Your task to perform on an android device: Search for flights from Seoul to Barcelona Image 0: 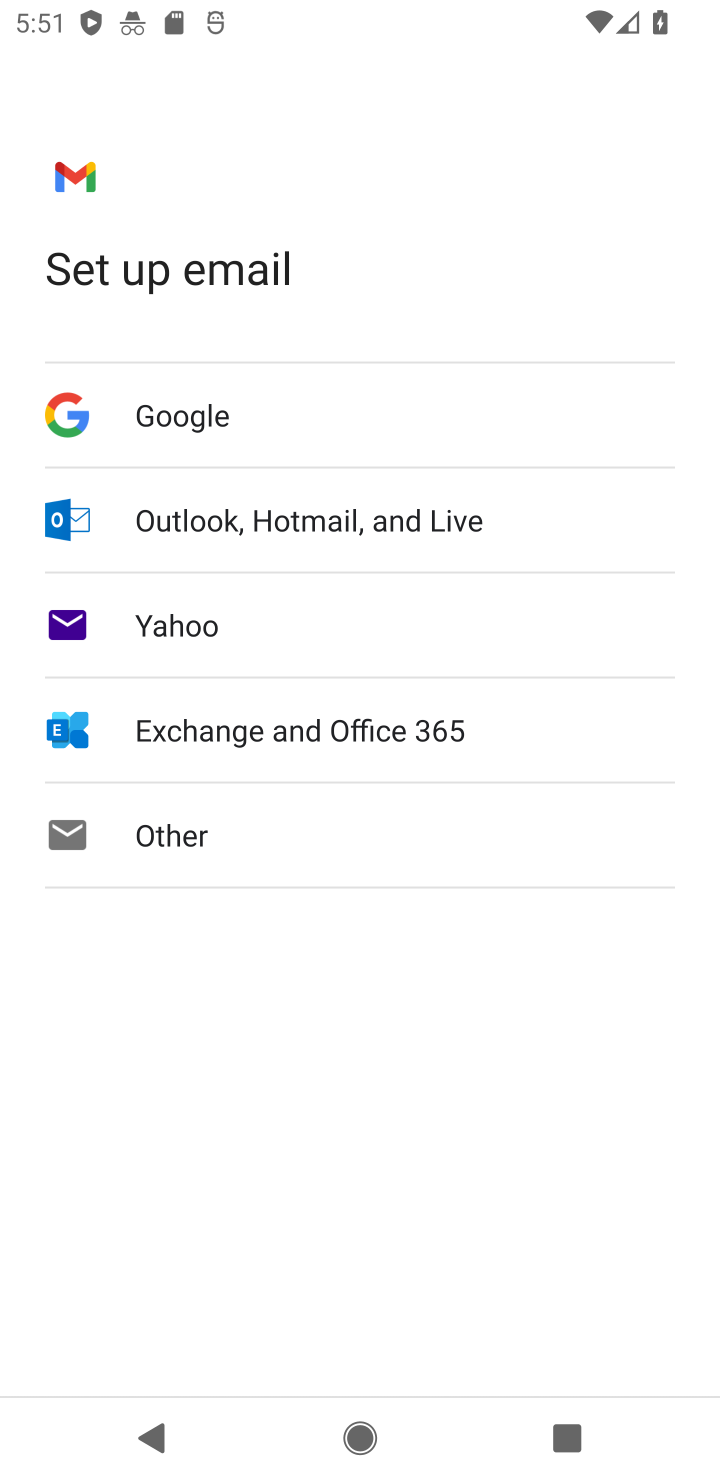
Step 0: press home button
Your task to perform on an android device: Search for flights from Seoul to Barcelona Image 1: 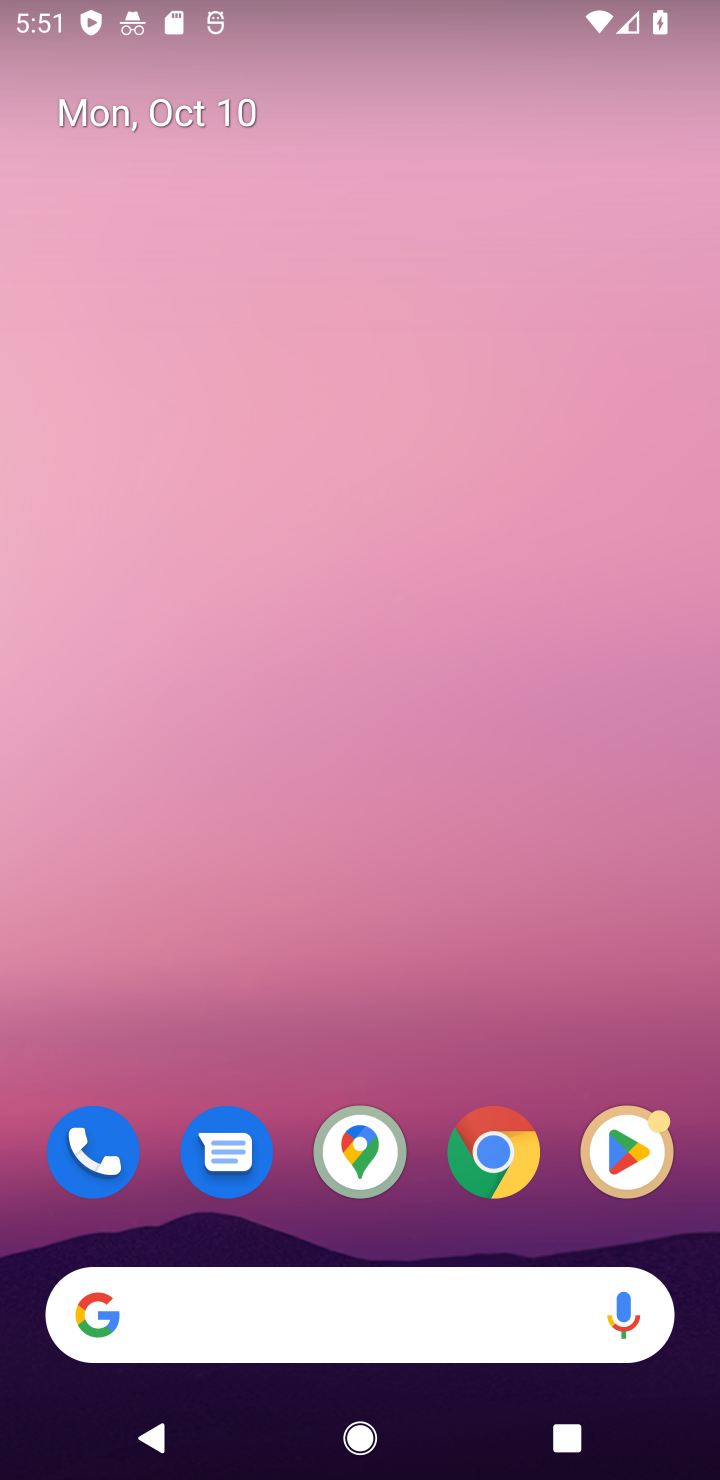
Step 1: click (495, 1150)
Your task to perform on an android device: Search for flights from Seoul to Barcelona Image 2: 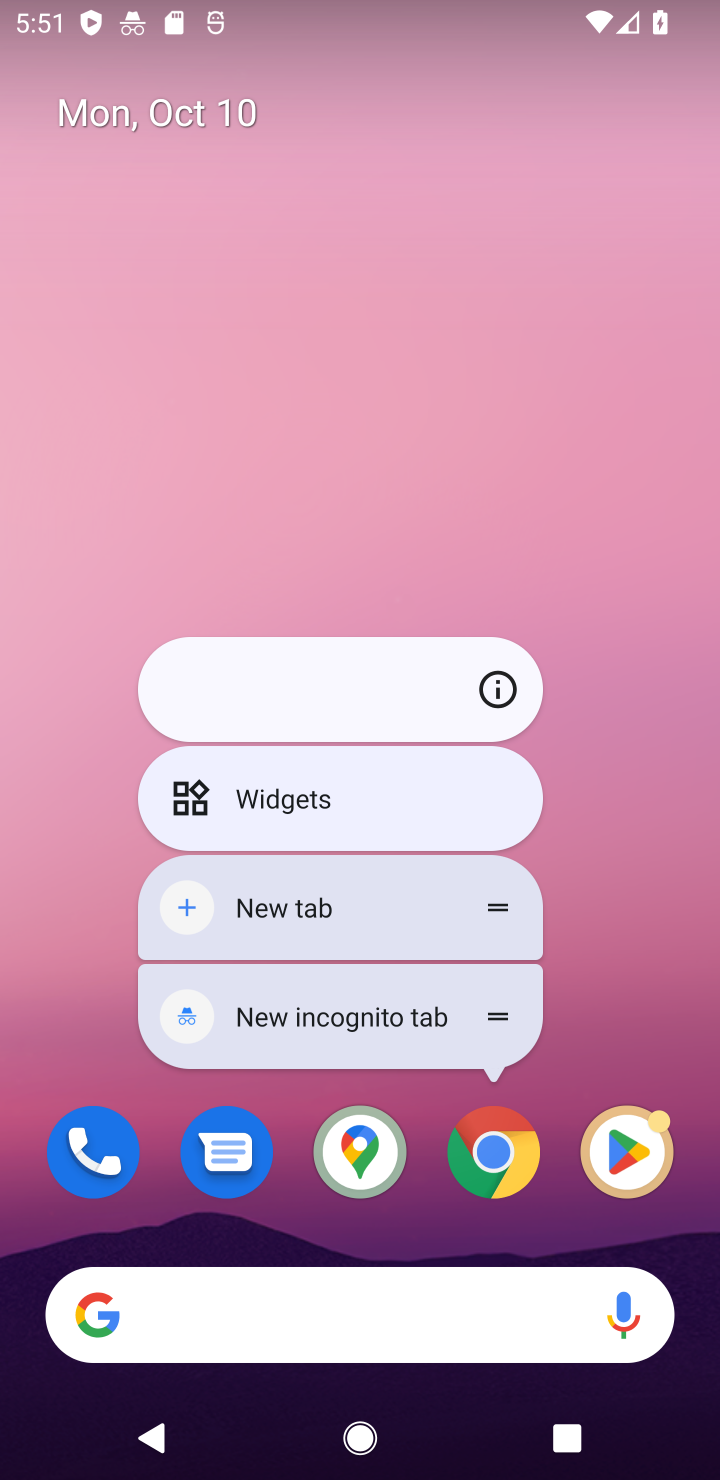
Step 2: click (495, 1150)
Your task to perform on an android device: Search for flights from Seoul to Barcelona Image 3: 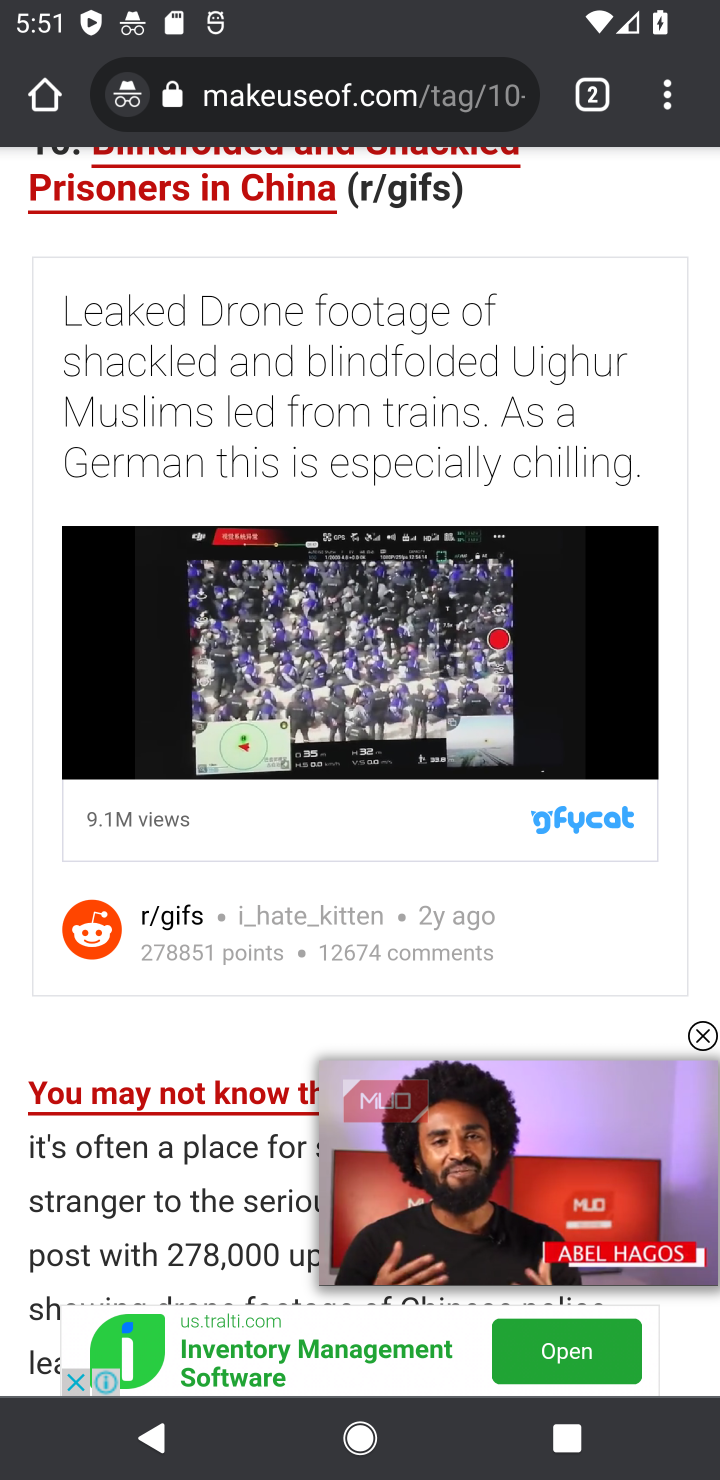
Step 3: click (451, 93)
Your task to perform on an android device: Search for flights from Seoul to Barcelona Image 4: 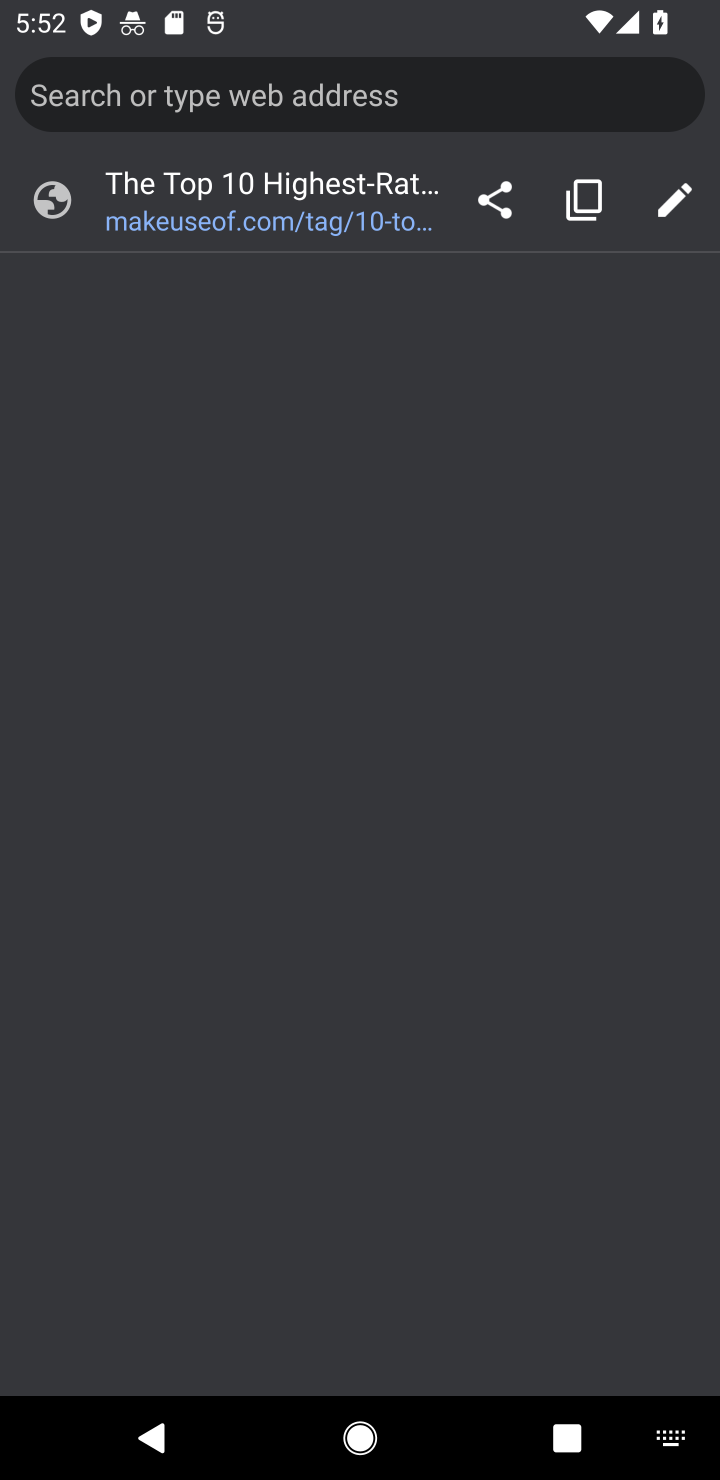
Step 4: type "flights from Seoul to Barcelona"
Your task to perform on an android device: Search for flights from Seoul to Barcelona Image 5: 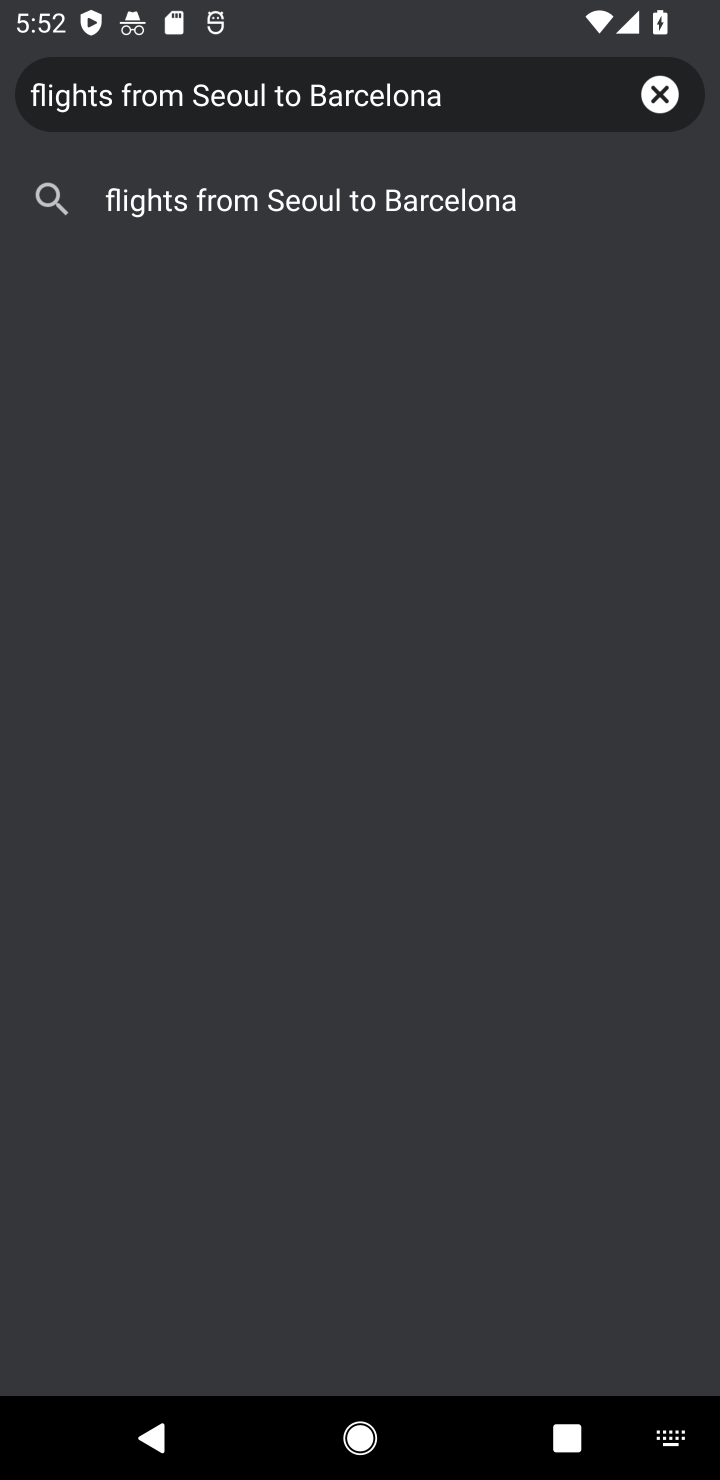
Step 5: click (385, 212)
Your task to perform on an android device: Search for flights from Seoul to Barcelona Image 6: 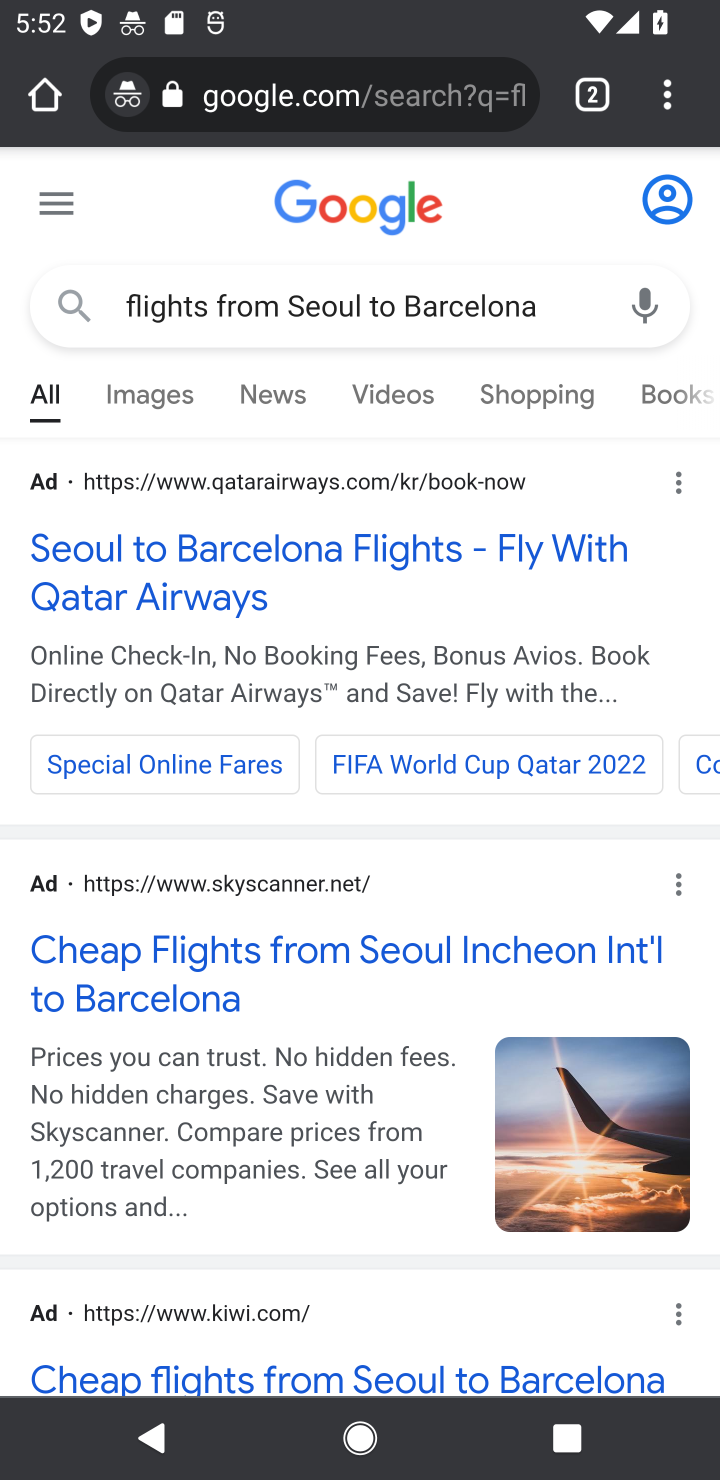
Step 6: task complete